Your task to perform on an android device: Open network settings Image 0: 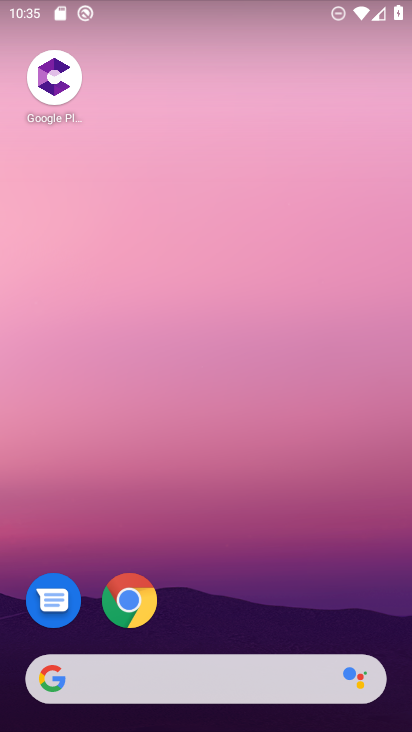
Step 0: drag from (204, 728) to (188, 135)
Your task to perform on an android device: Open network settings Image 1: 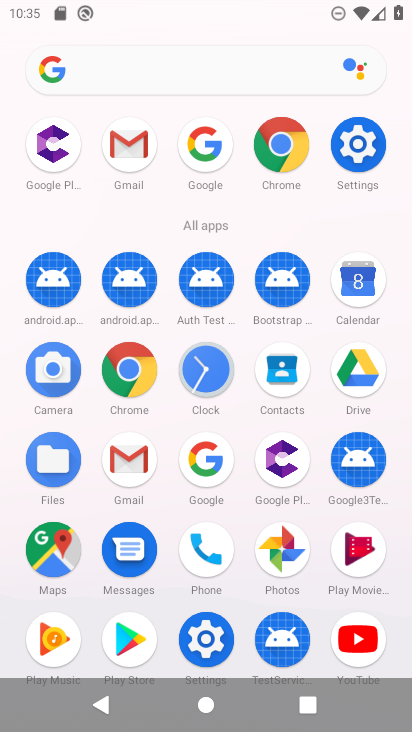
Step 1: click (352, 142)
Your task to perform on an android device: Open network settings Image 2: 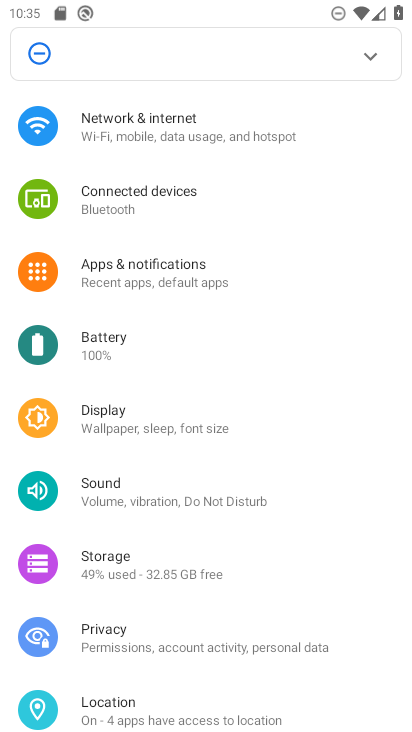
Step 2: click (127, 130)
Your task to perform on an android device: Open network settings Image 3: 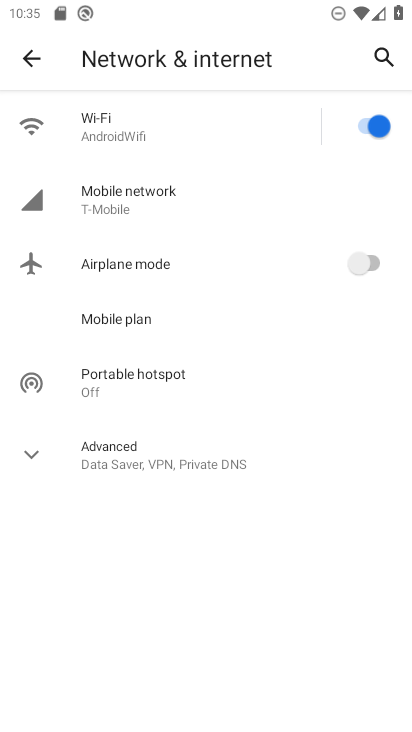
Step 3: task complete